Your task to perform on an android device: toggle translation in the chrome app Image 0: 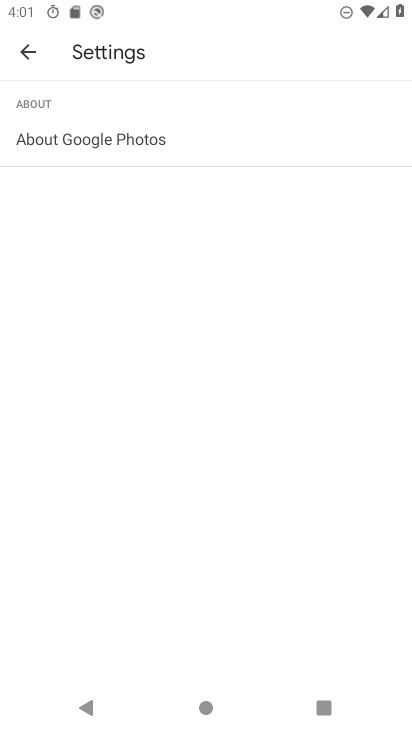
Step 0: press home button
Your task to perform on an android device: toggle translation in the chrome app Image 1: 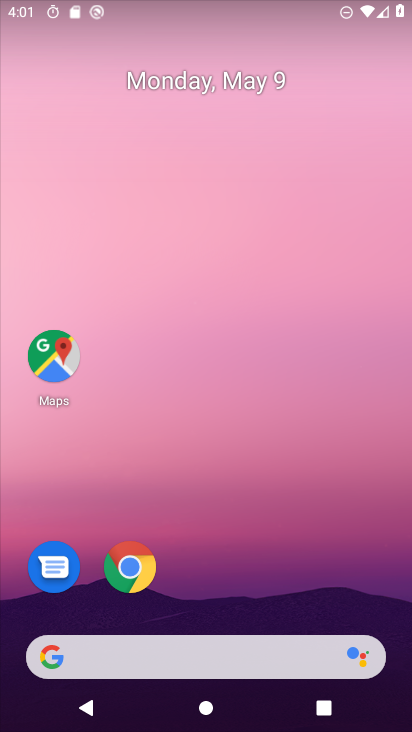
Step 1: click (135, 556)
Your task to perform on an android device: toggle translation in the chrome app Image 2: 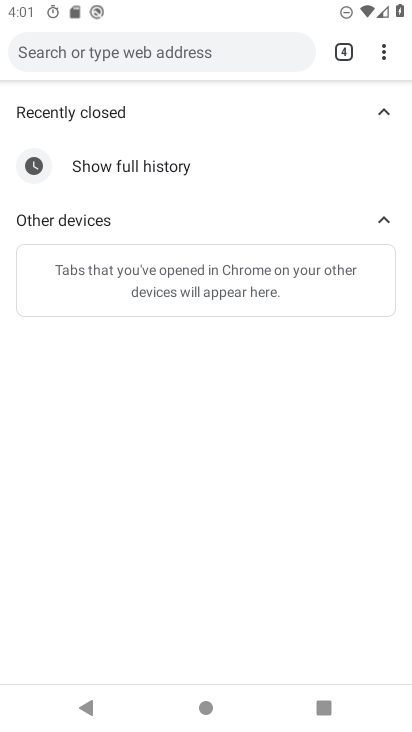
Step 2: click (391, 60)
Your task to perform on an android device: toggle translation in the chrome app Image 3: 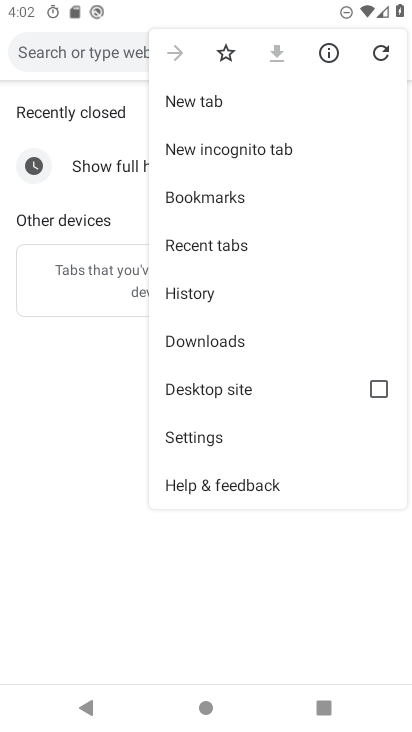
Step 3: click (213, 437)
Your task to perform on an android device: toggle translation in the chrome app Image 4: 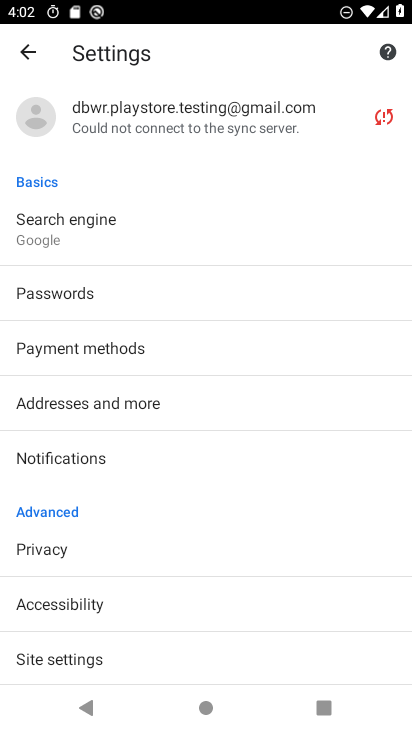
Step 4: drag from (162, 643) to (167, 272)
Your task to perform on an android device: toggle translation in the chrome app Image 5: 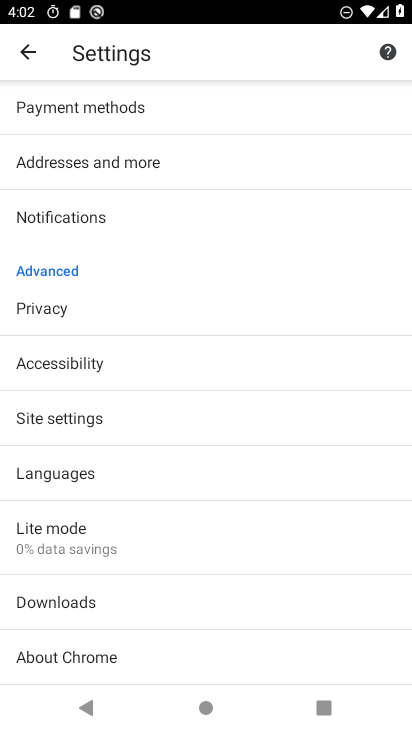
Step 5: click (77, 474)
Your task to perform on an android device: toggle translation in the chrome app Image 6: 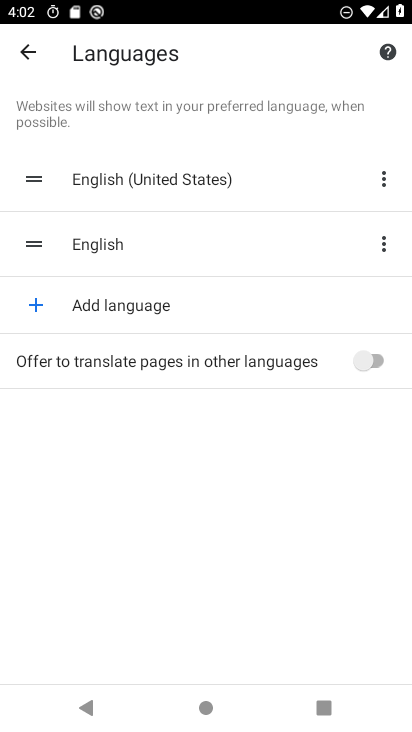
Step 6: click (376, 361)
Your task to perform on an android device: toggle translation in the chrome app Image 7: 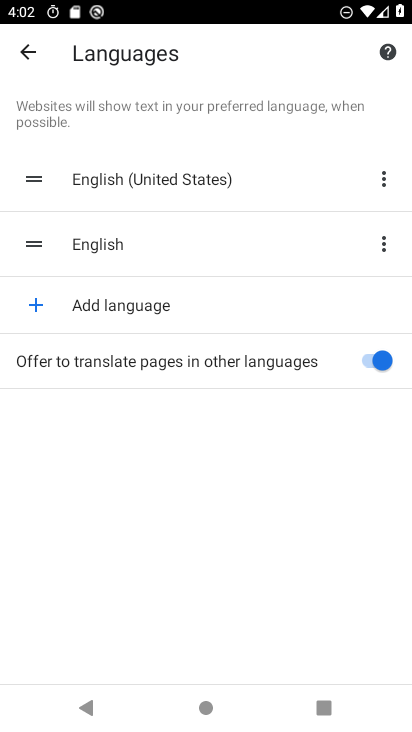
Step 7: task complete